Your task to perform on an android device: Search for 3d printed chess sets on Etsy. Image 0: 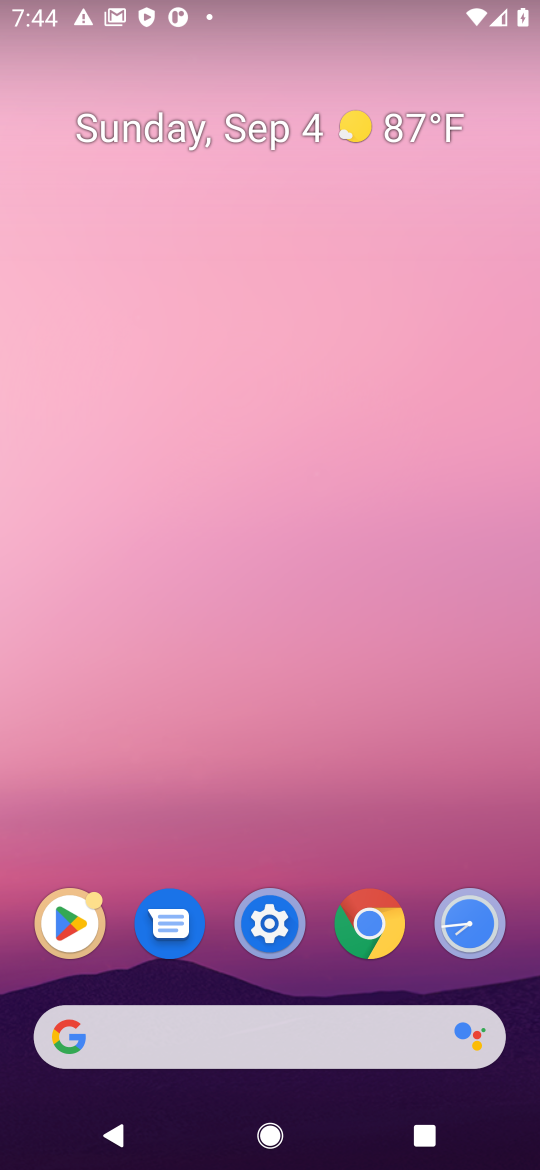
Step 0: click (376, 1042)
Your task to perform on an android device: Search for 3d printed chess sets on Etsy. Image 1: 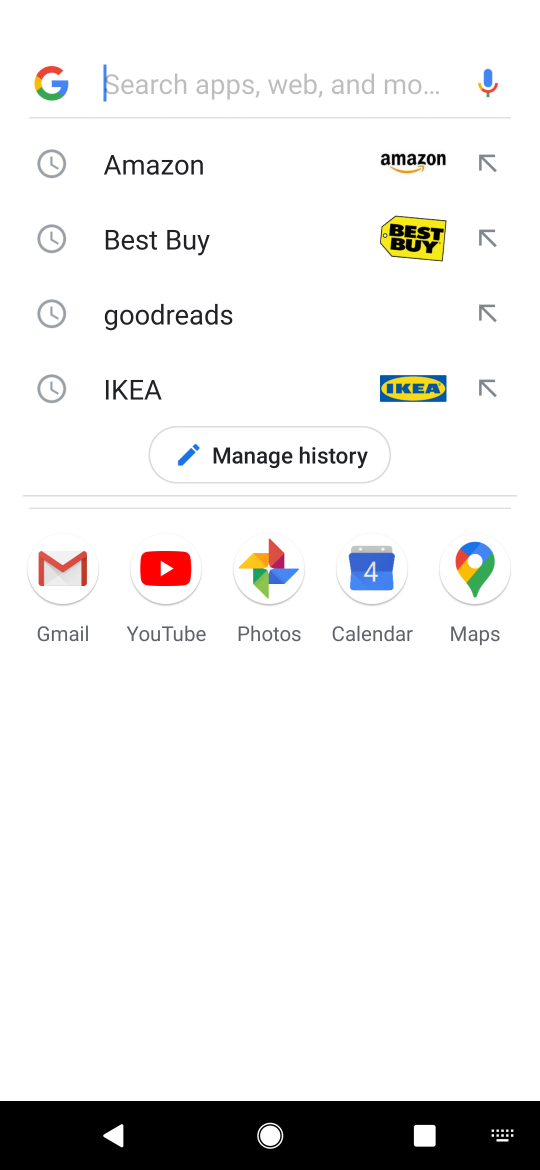
Step 1: press enter
Your task to perform on an android device: Search for 3d printed chess sets on Etsy. Image 2: 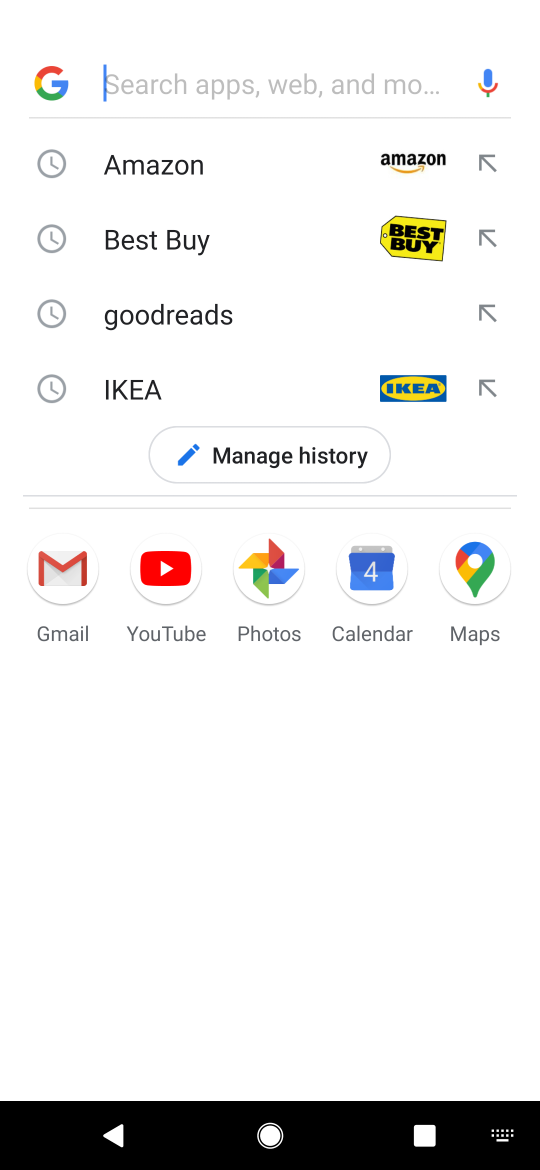
Step 2: type "etsy"
Your task to perform on an android device: Search for 3d printed chess sets on Etsy. Image 3: 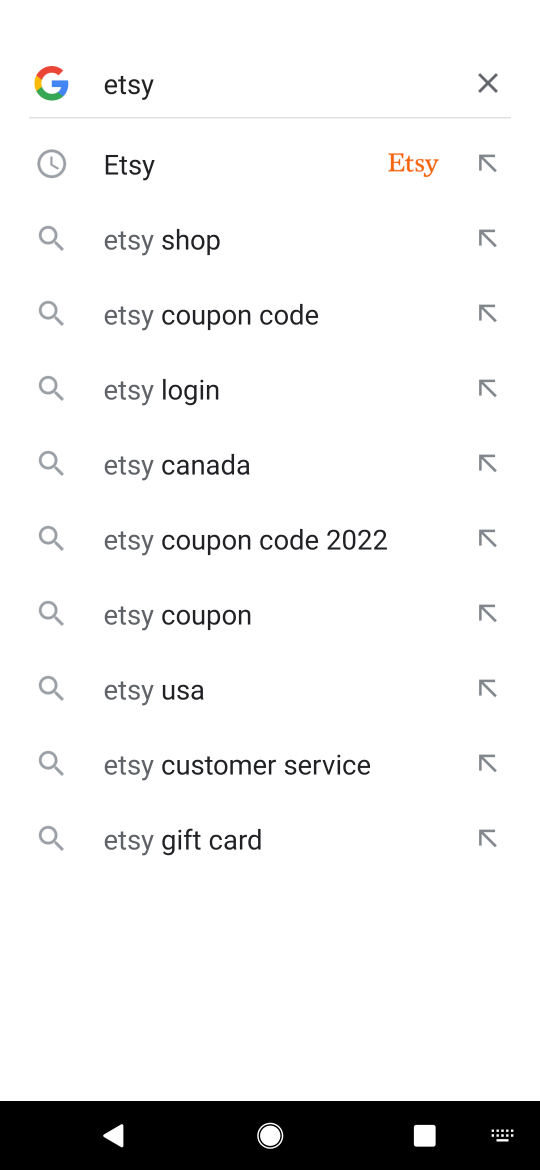
Step 3: click (208, 166)
Your task to perform on an android device: Search for 3d printed chess sets on Etsy. Image 4: 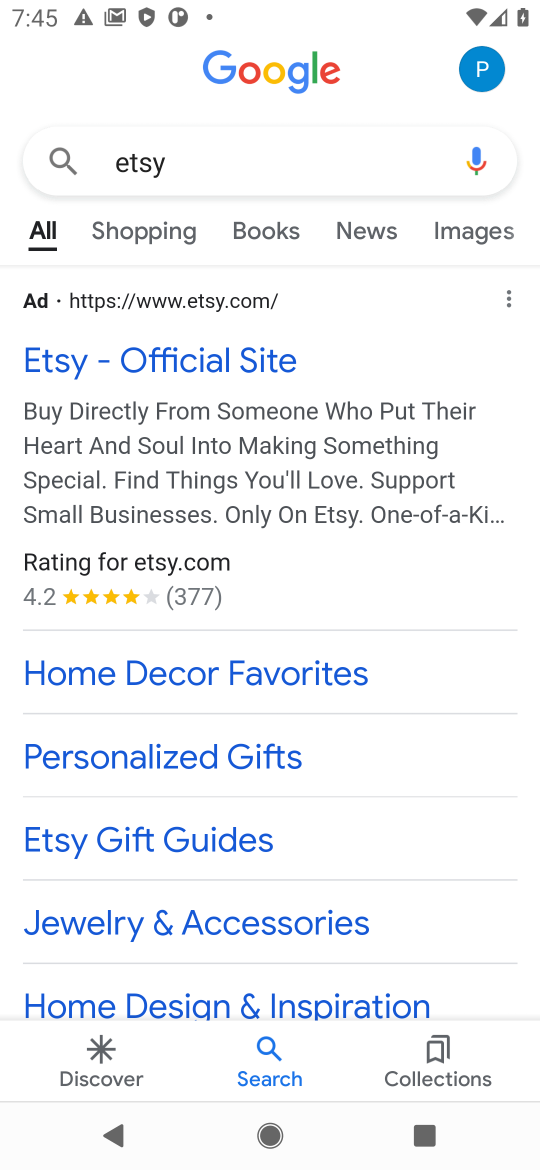
Step 4: click (218, 356)
Your task to perform on an android device: Search for 3d printed chess sets on Etsy. Image 5: 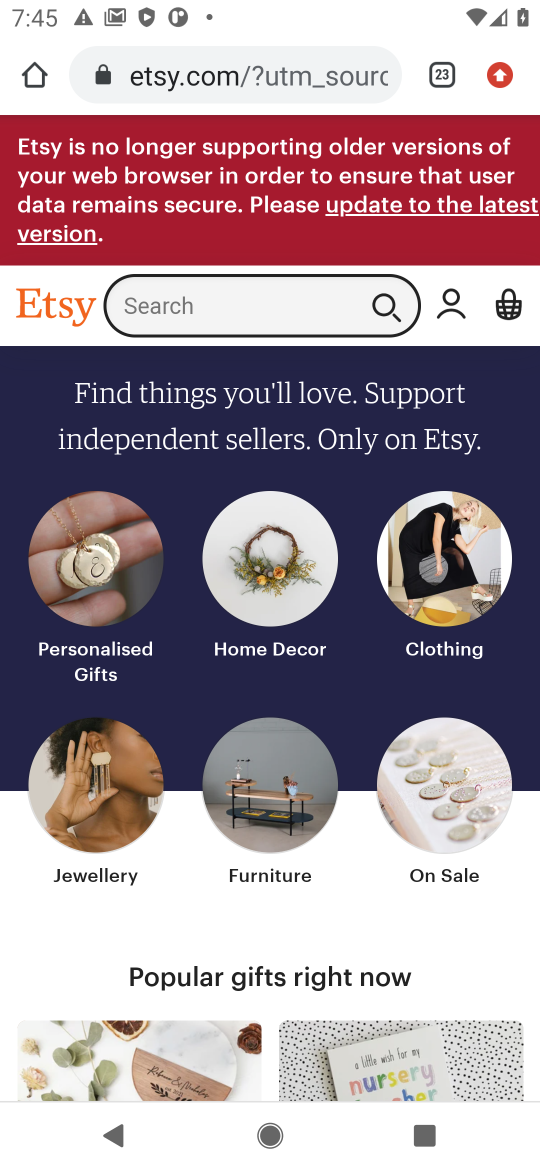
Step 5: click (210, 301)
Your task to perform on an android device: Search for 3d printed chess sets on Etsy. Image 6: 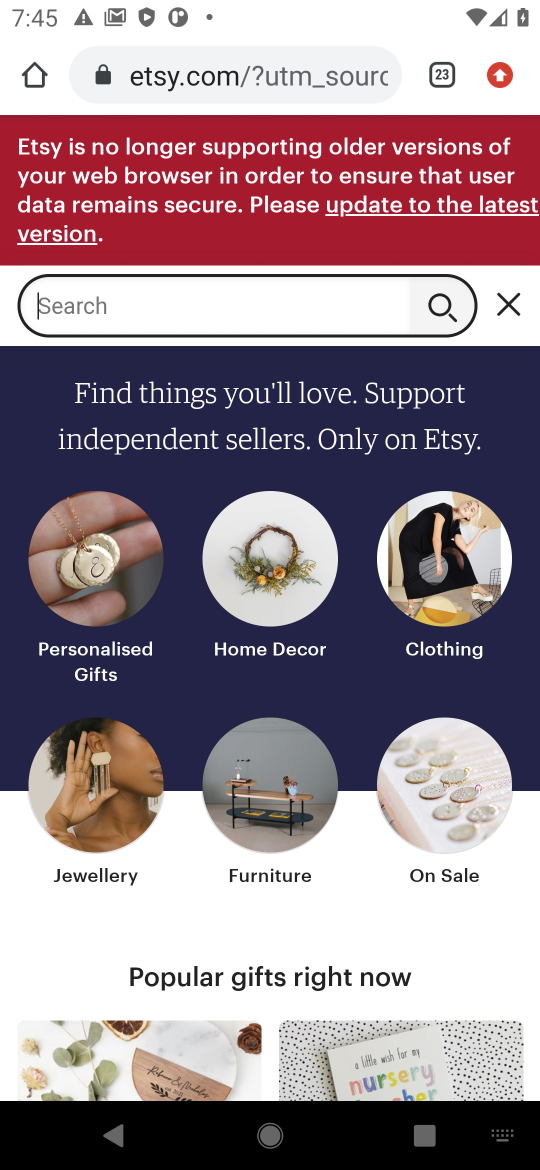
Step 6: press enter
Your task to perform on an android device: Search for 3d printed chess sets on Etsy. Image 7: 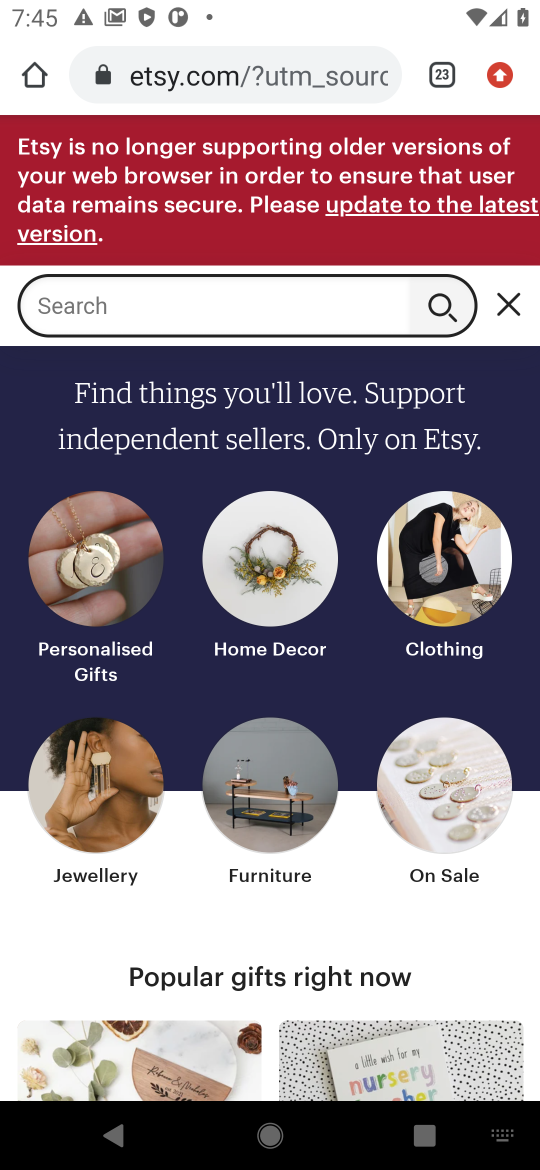
Step 7: type "3d printed chess sets"
Your task to perform on an android device: Search for 3d printed chess sets on Etsy. Image 8: 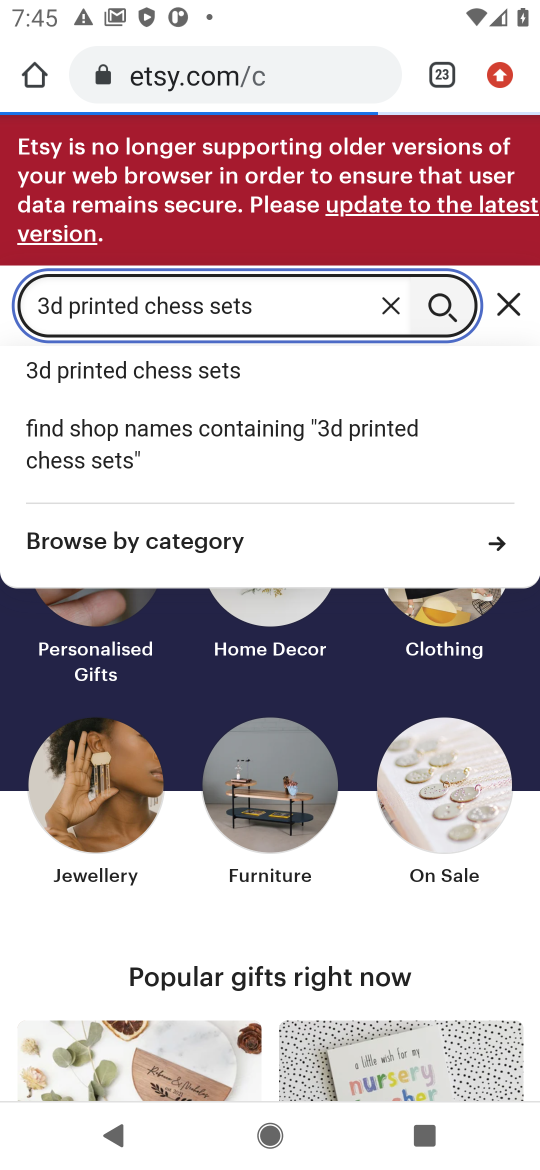
Step 8: click (216, 370)
Your task to perform on an android device: Search for 3d printed chess sets on Etsy. Image 9: 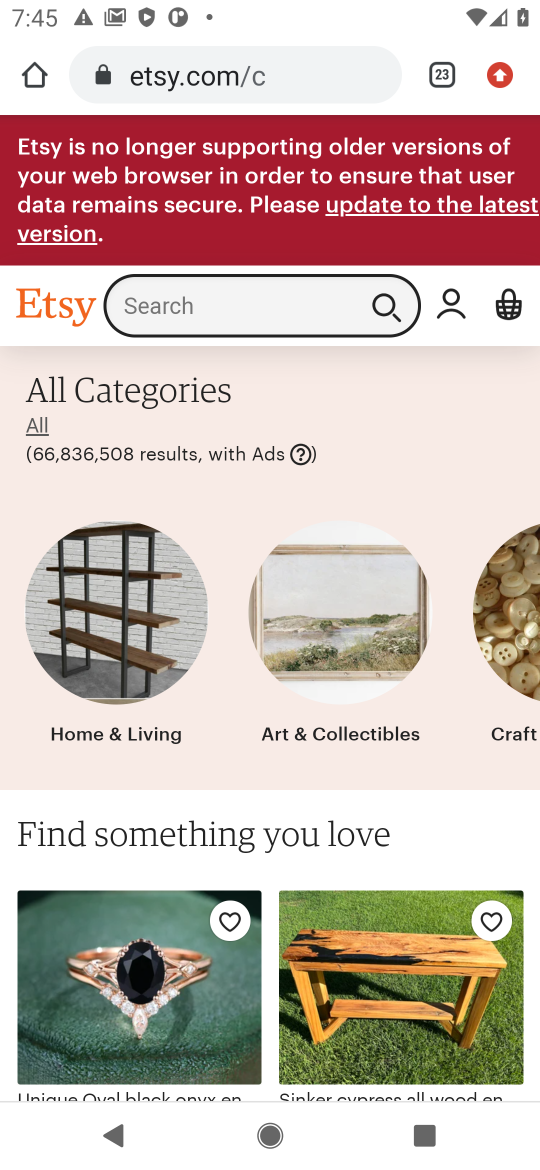
Step 9: click (170, 301)
Your task to perform on an android device: Search for 3d printed chess sets on Etsy. Image 10: 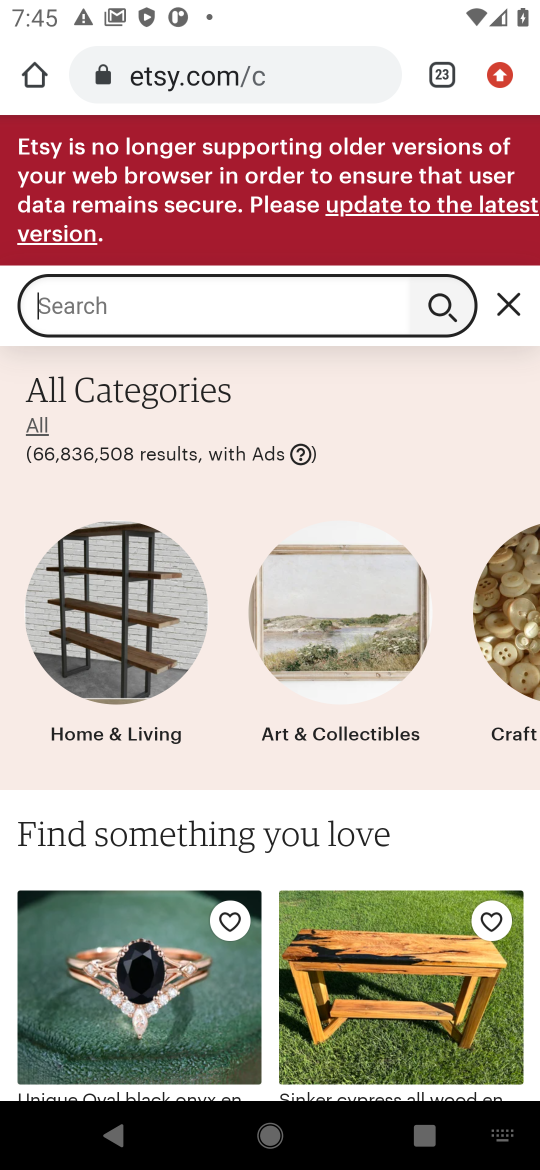
Step 10: press enter
Your task to perform on an android device: Search for 3d printed chess sets on Etsy. Image 11: 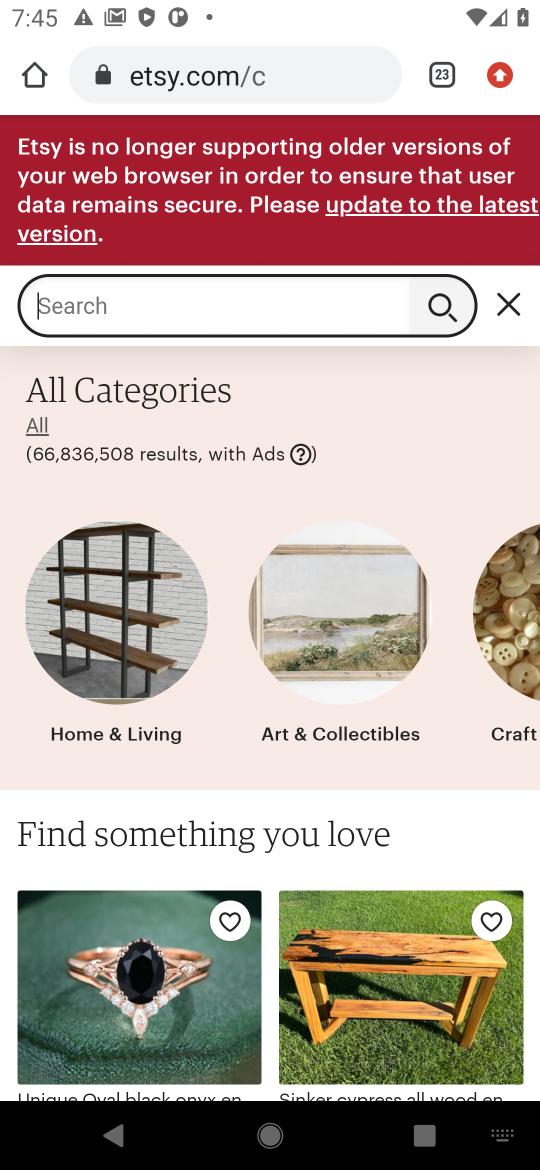
Step 11: type "3d printed chess sets "
Your task to perform on an android device: Search for 3d printed chess sets on Etsy. Image 12: 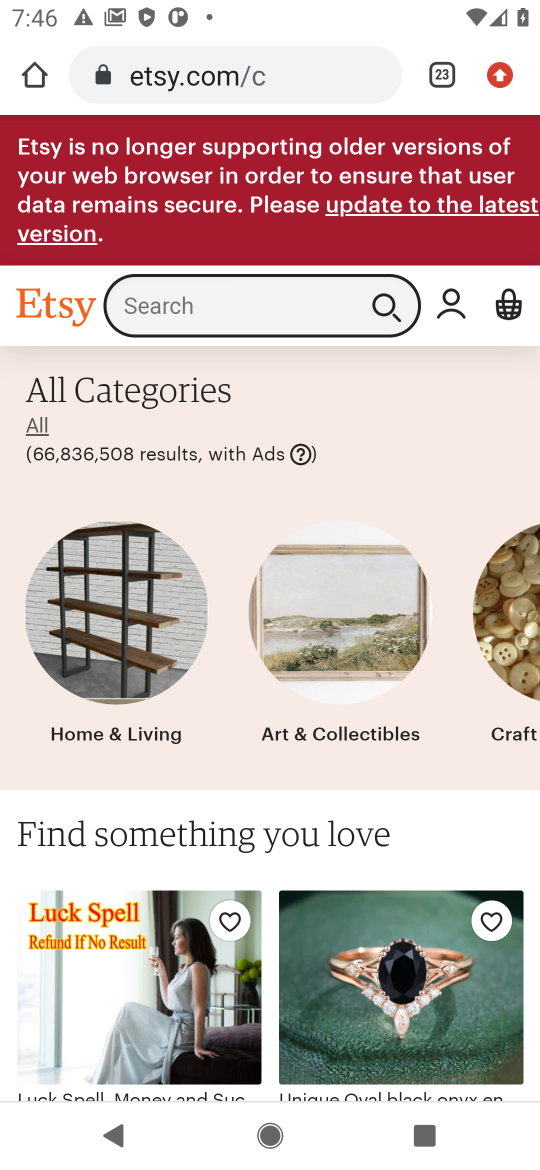
Step 12: click (227, 299)
Your task to perform on an android device: Search for 3d printed chess sets on Etsy. Image 13: 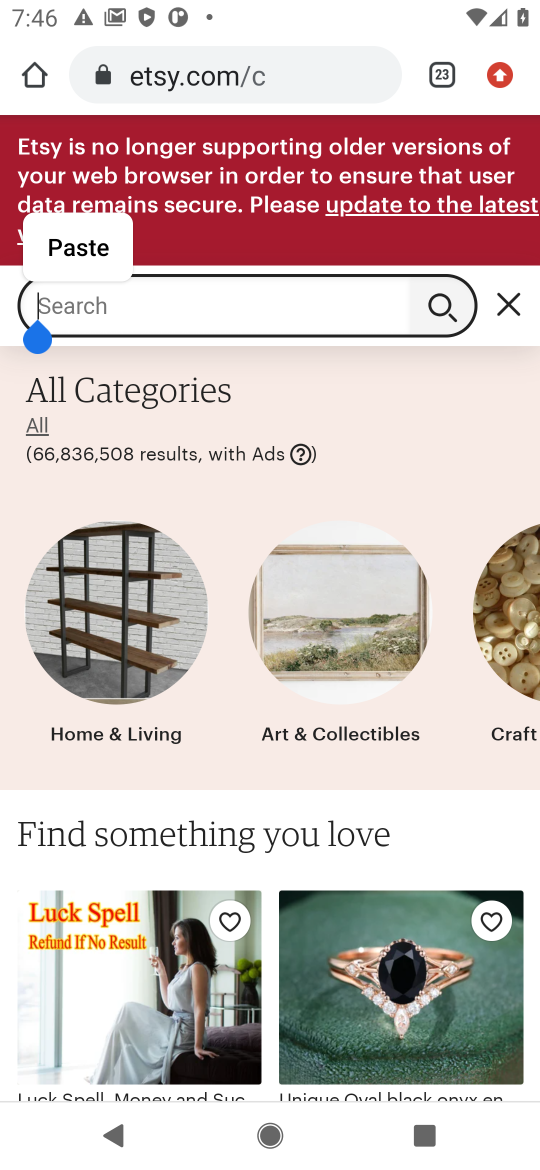
Step 13: type "3d printed chess sets "
Your task to perform on an android device: Search for 3d printed chess sets on Etsy. Image 14: 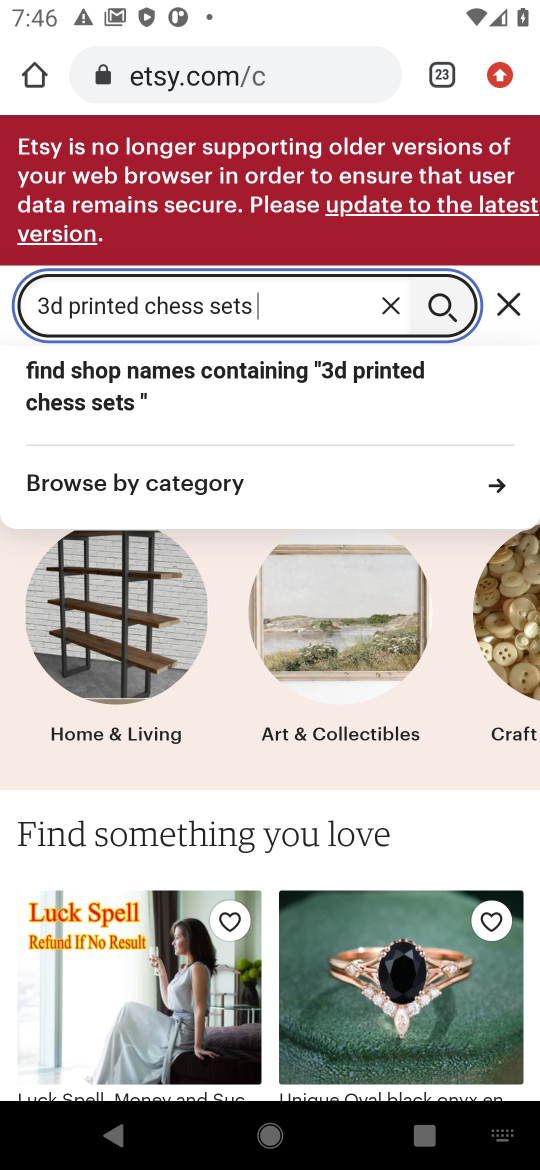
Step 14: click (437, 309)
Your task to perform on an android device: Search for 3d printed chess sets on Etsy. Image 15: 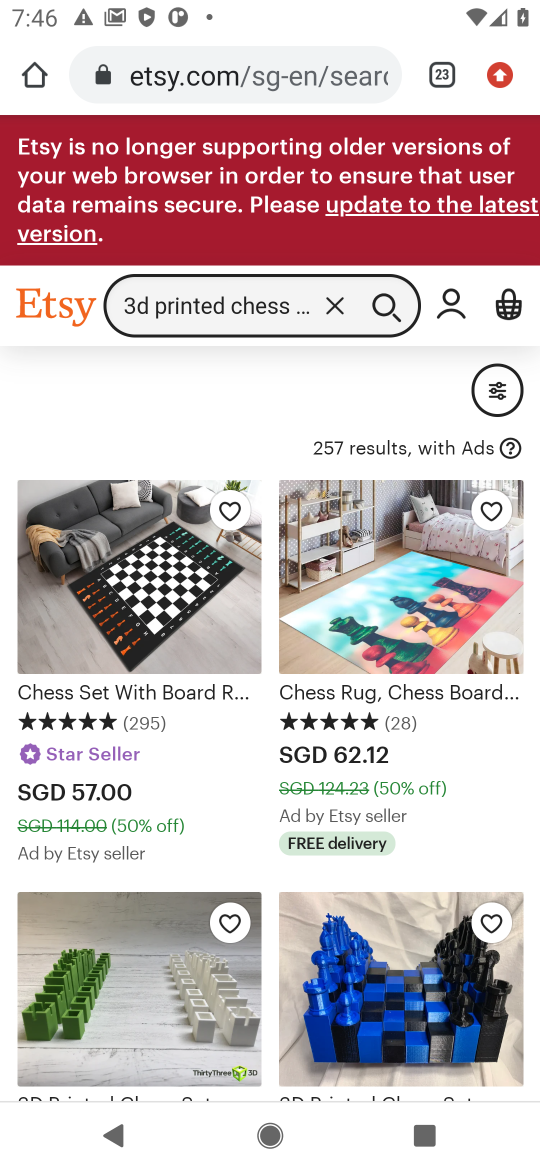
Step 15: task complete